Your task to perform on an android device: Is it going to rain this weekend? Image 0: 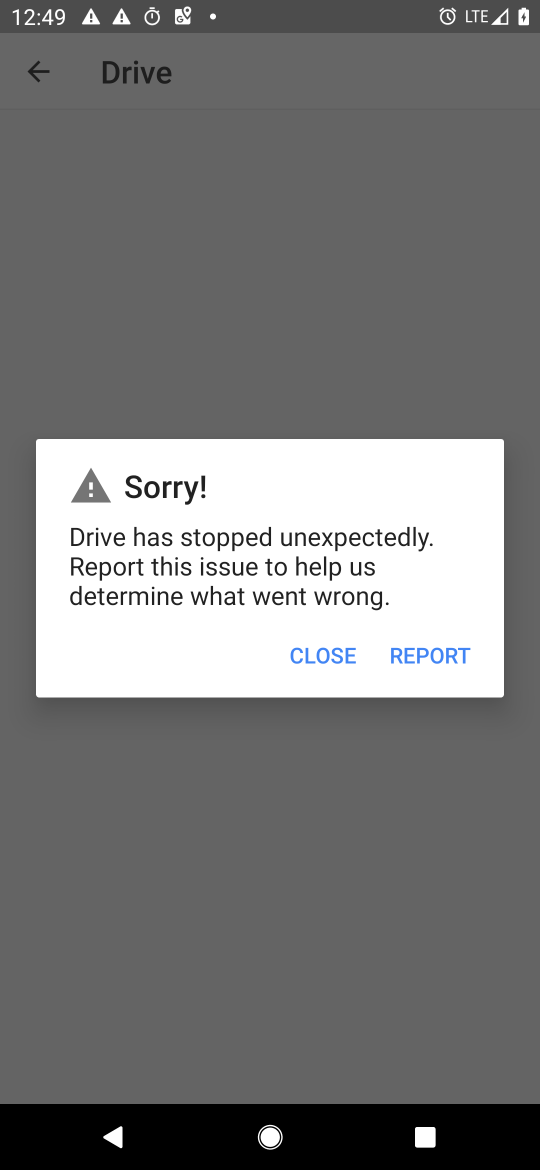
Step 0: press home button
Your task to perform on an android device: Is it going to rain this weekend? Image 1: 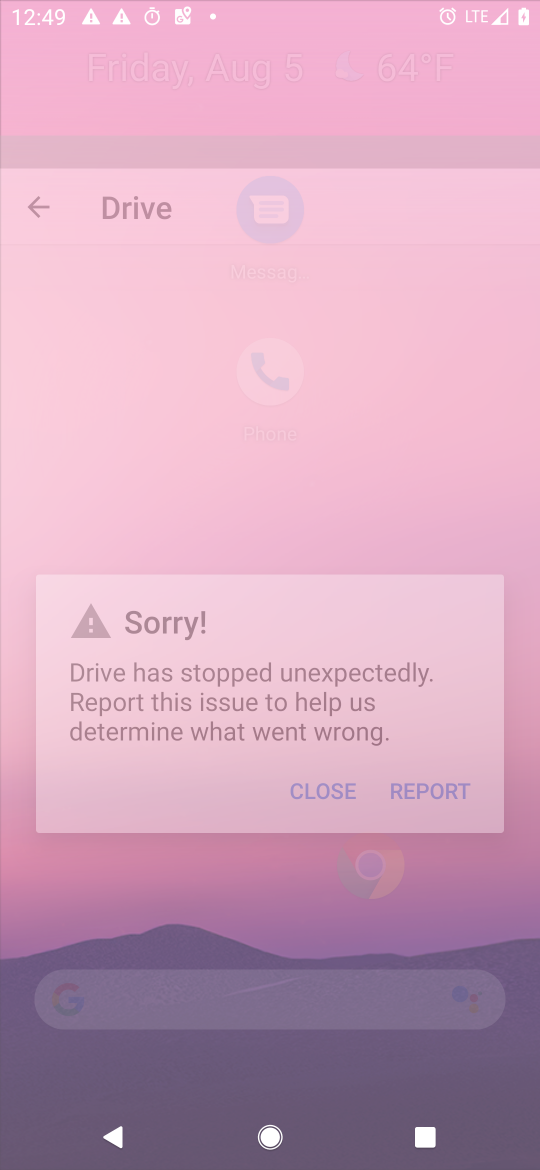
Step 1: click (350, 308)
Your task to perform on an android device: Is it going to rain this weekend? Image 2: 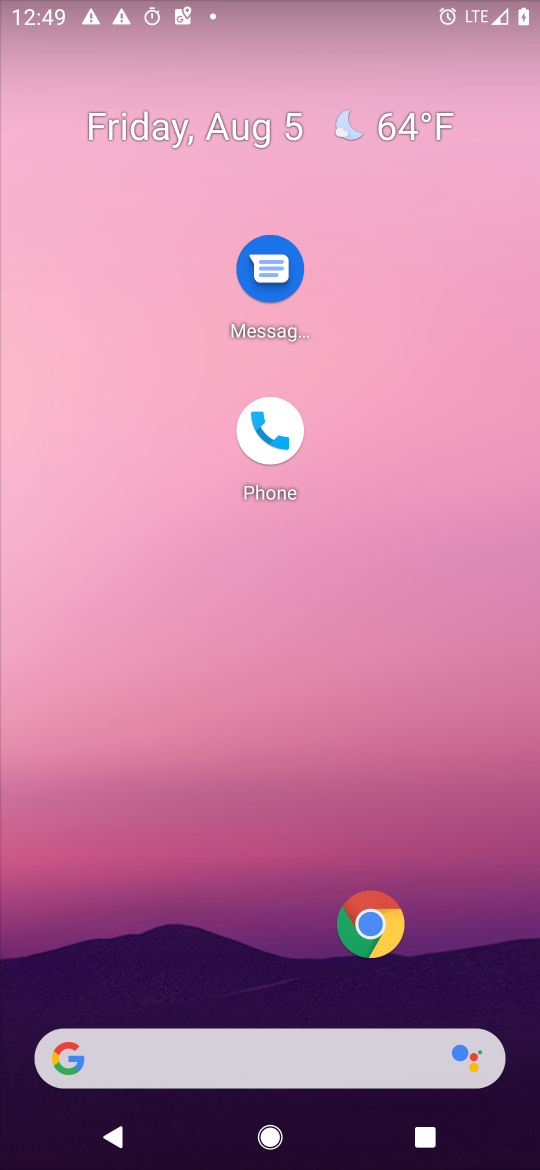
Step 2: drag from (261, 751) to (284, 48)
Your task to perform on an android device: Is it going to rain this weekend? Image 3: 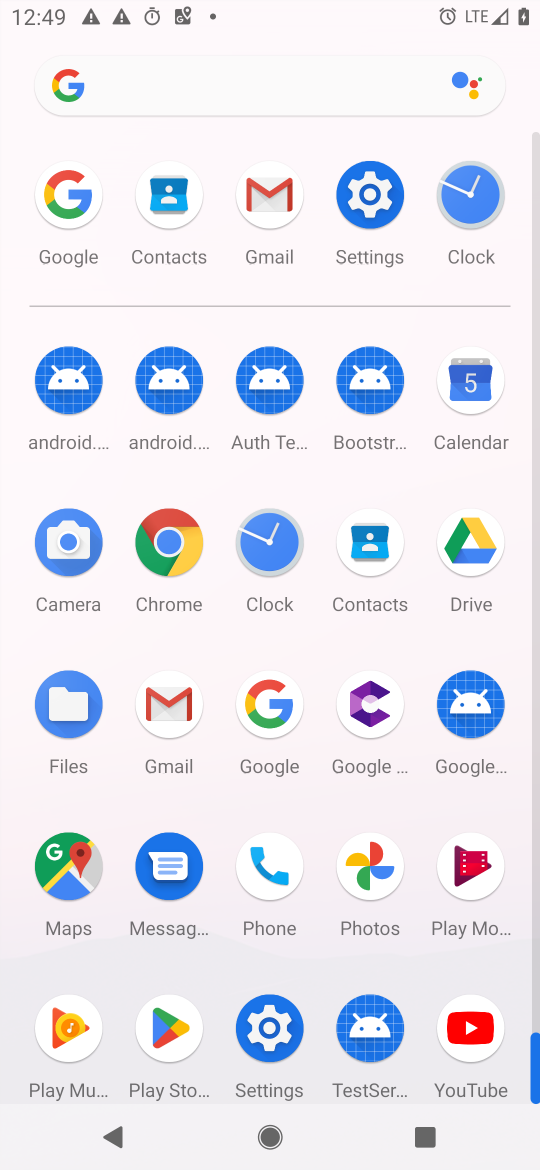
Step 3: click (183, 79)
Your task to perform on an android device: Is it going to rain this weekend? Image 4: 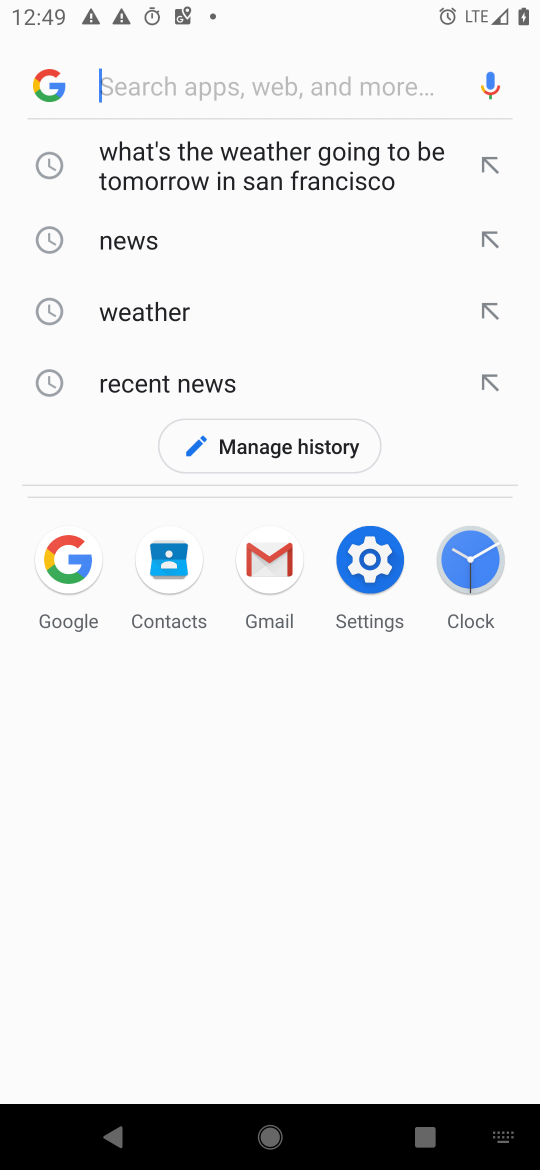
Step 4: type "Is it going to rain this weekend?"
Your task to perform on an android device: Is it going to rain this weekend? Image 5: 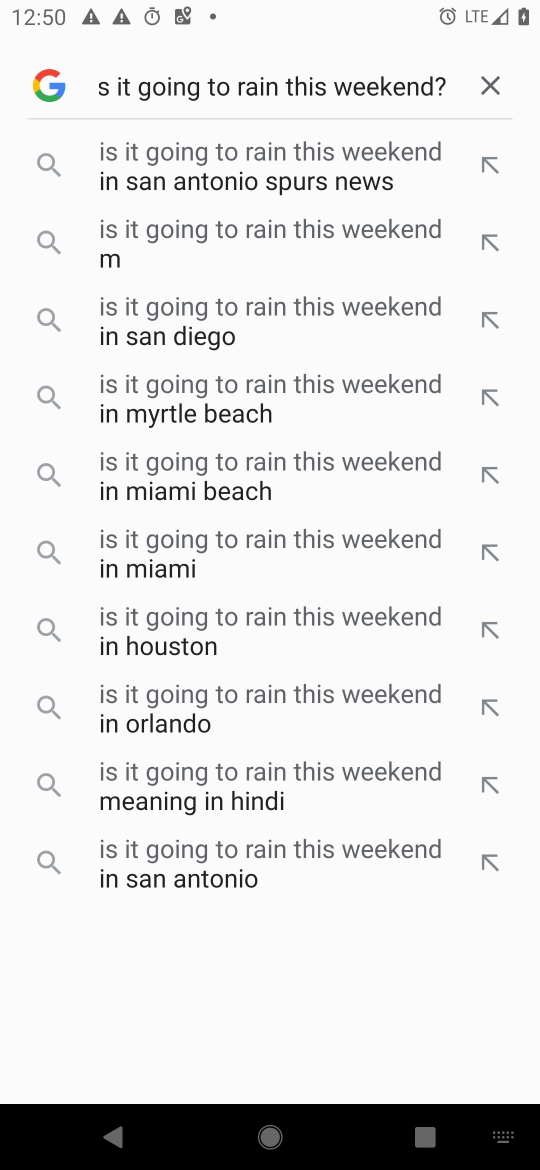
Step 5: click (201, 151)
Your task to perform on an android device: Is it going to rain this weekend? Image 6: 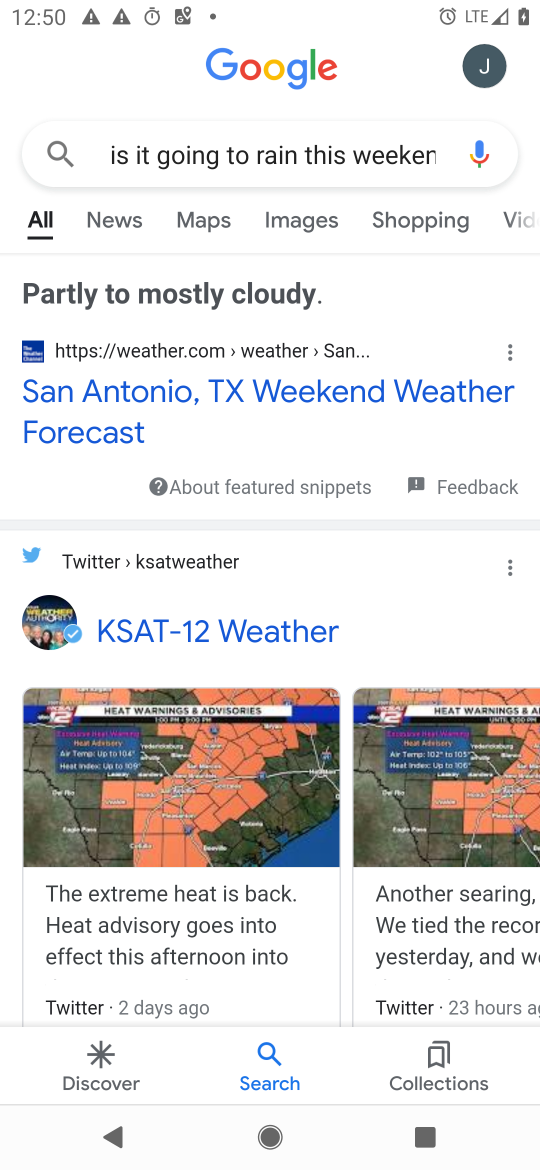
Step 6: task complete